Your task to perform on an android device: toggle sleep mode Image 0: 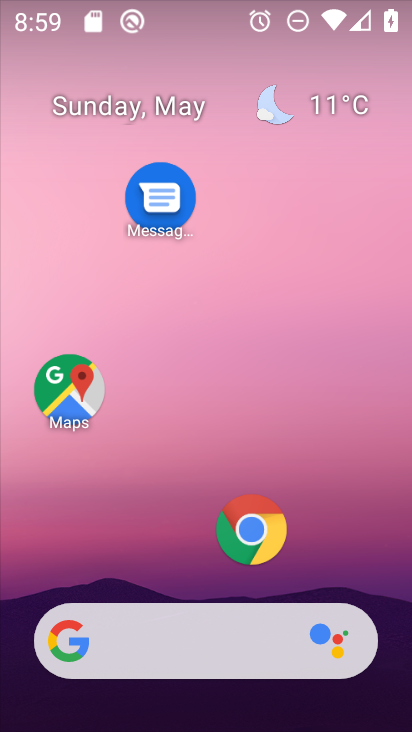
Step 0: drag from (202, 576) to (232, 27)
Your task to perform on an android device: toggle sleep mode Image 1: 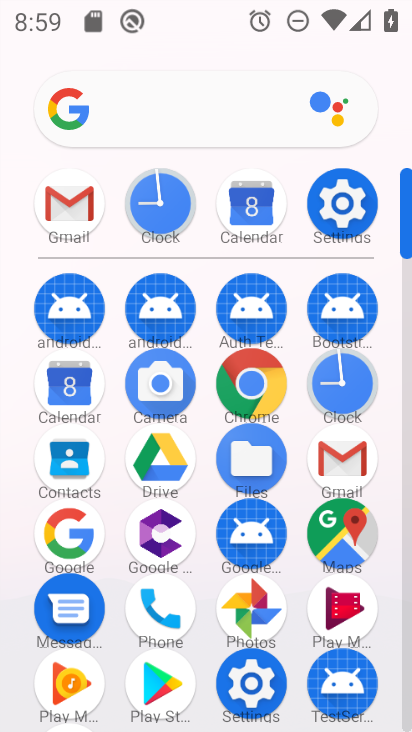
Step 1: click (247, 680)
Your task to perform on an android device: toggle sleep mode Image 2: 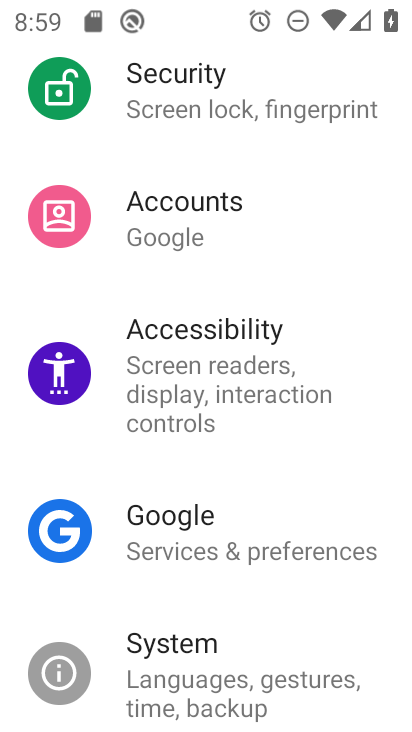
Step 2: drag from (203, 117) to (256, 592)
Your task to perform on an android device: toggle sleep mode Image 3: 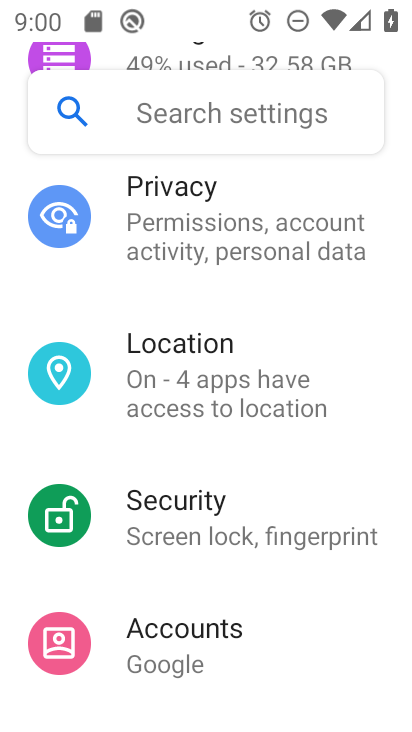
Step 3: drag from (214, 183) to (238, 727)
Your task to perform on an android device: toggle sleep mode Image 4: 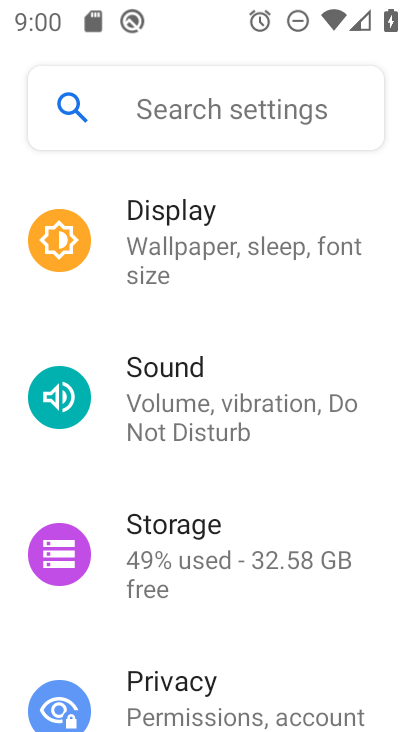
Step 4: click (209, 265)
Your task to perform on an android device: toggle sleep mode Image 5: 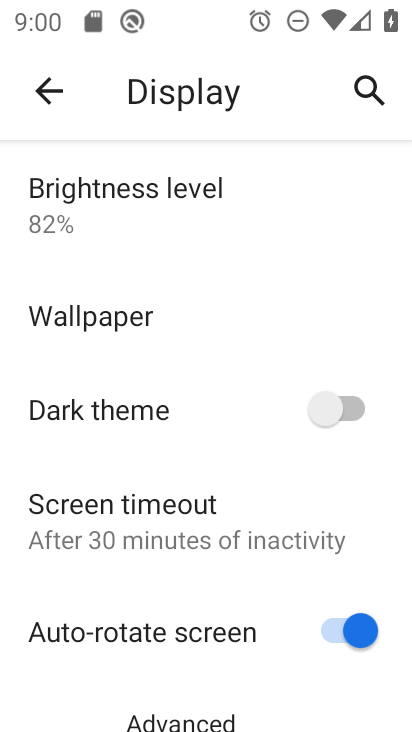
Step 5: task complete